Your task to perform on an android device: move an email to a new category in the gmail app Image 0: 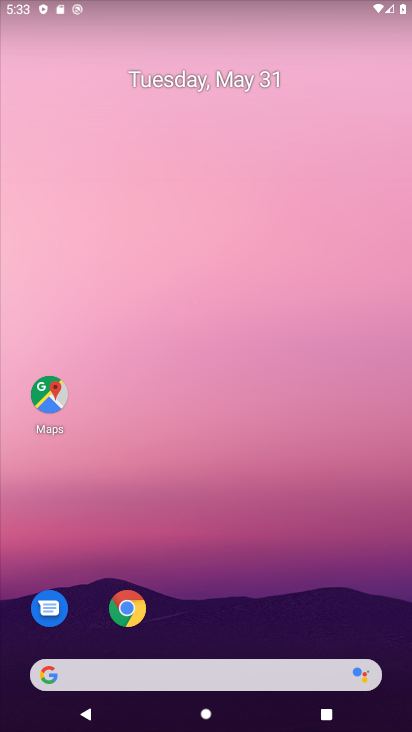
Step 0: drag from (166, 649) to (164, 294)
Your task to perform on an android device: move an email to a new category in the gmail app Image 1: 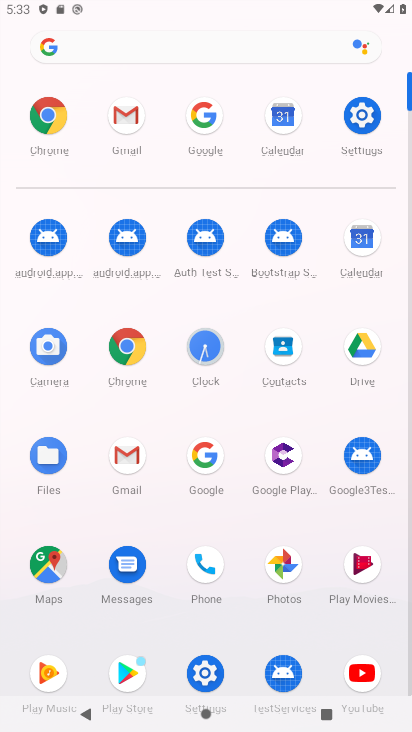
Step 1: click (135, 119)
Your task to perform on an android device: move an email to a new category in the gmail app Image 2: 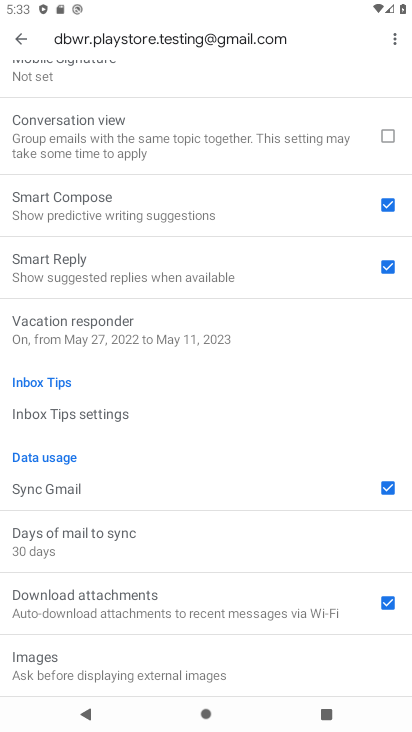
Step 2: click (13, 41)
Your task to perform on an android device: move an email to a new category in the gmail app Image 3: 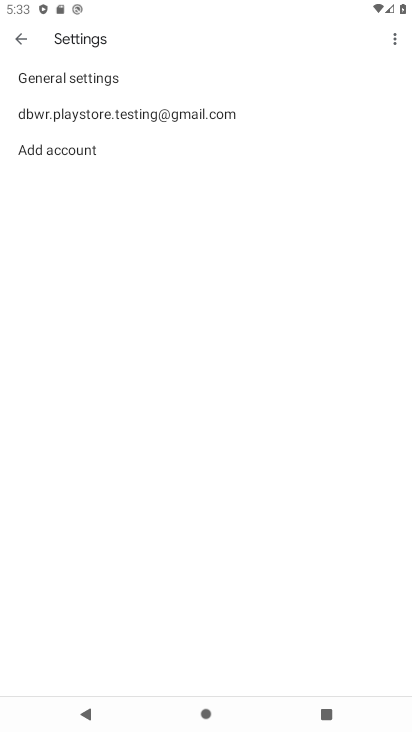
Step 3: click (13, 42)
Your task to perform on an android device: move an email to a new category in the gmail app Image 4: 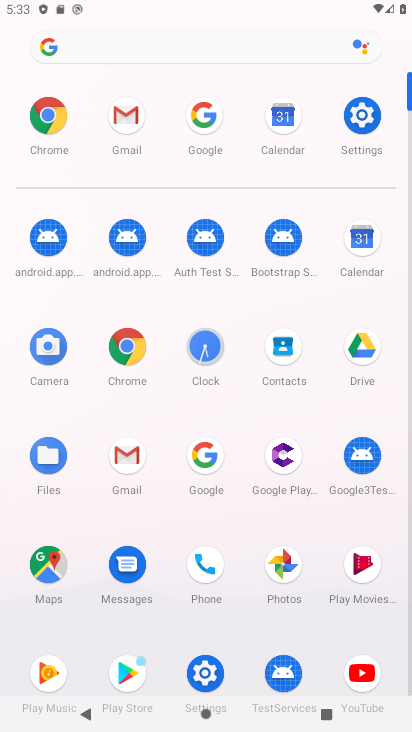
Step 4: click (126, 123)
Your task to perform on an android device: move an email to a new category in the gmail app Image 5: 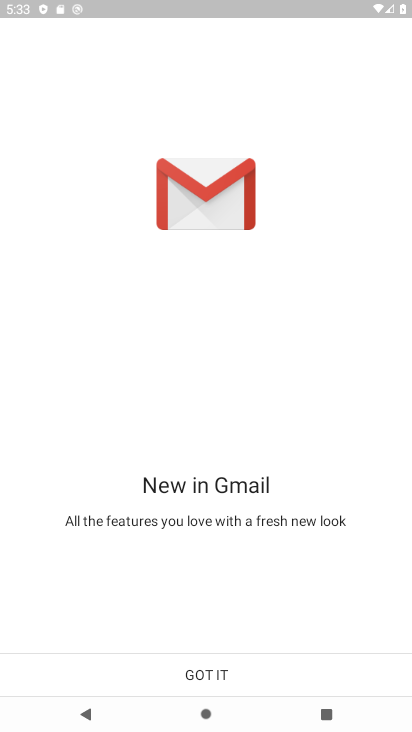
Step 5: click (215, 682)
Your task to perform on an android device: move an email to a new category in the gmail app Image 6: 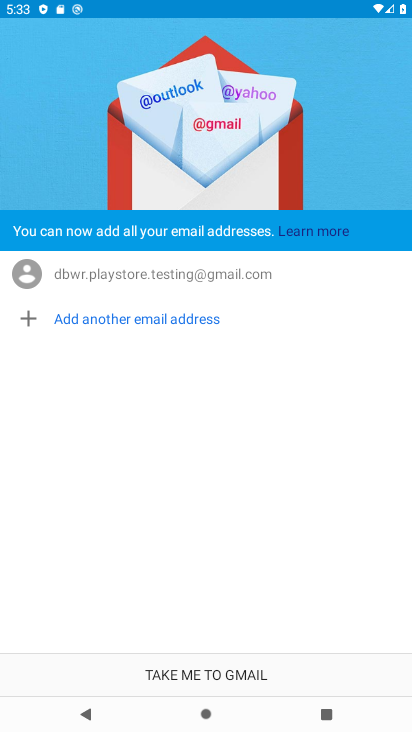
Step 6: click (213, 673)
Your task to perform on an android device: move an email to a new category in the gmail app Image 7: 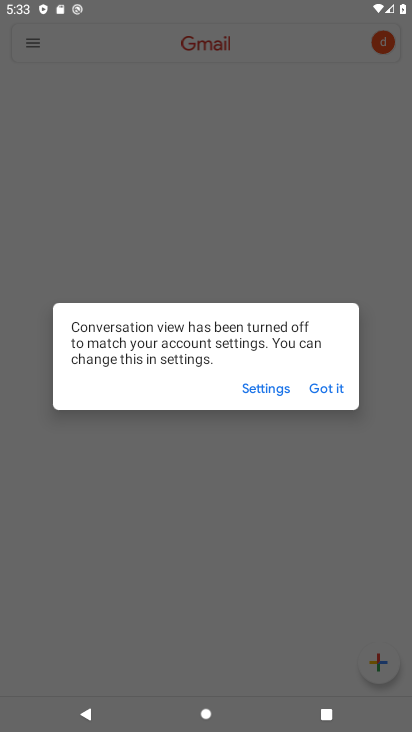
Step 7: click (338, 381)
Your task to perform on an android device: move an email to a new category in the gmail app Image 8: 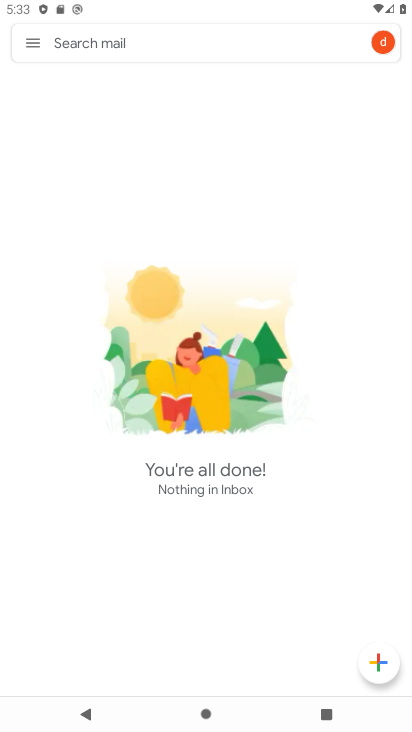
Step 8: task complete